Your task to perform on an android device: turn off improve location accuracy Image 0: 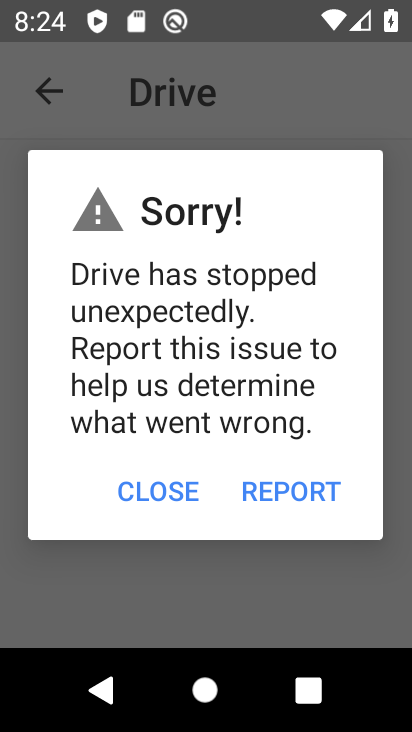
Step 0: press home button
Your task to perform on an android device: turn off improve location accuracy Image 1: 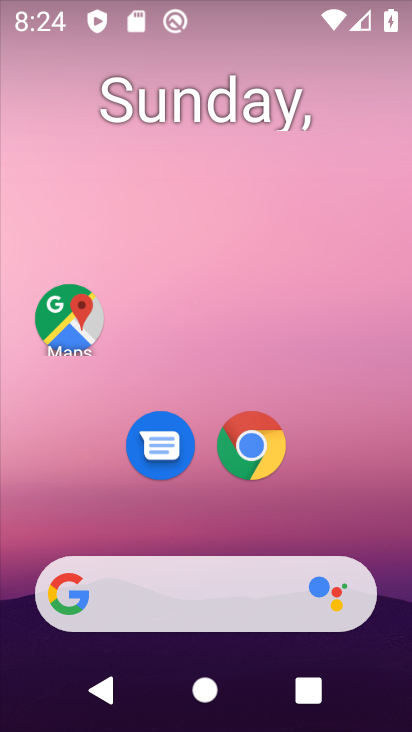
Step 1: drag from (380, 519) to (290, 70)
Your task to perform on an android device: turn off improve location accuracy Image 2: 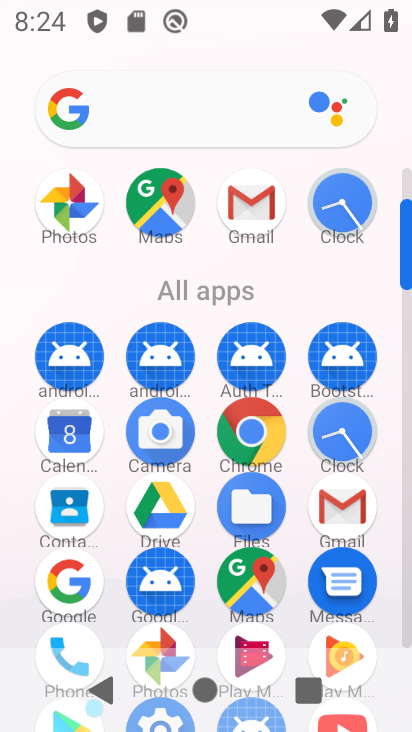
Step 2: drag from (306, 603) to (288, 342)
Your task to perform on an android device: turn off improve location accuracy Image 3: 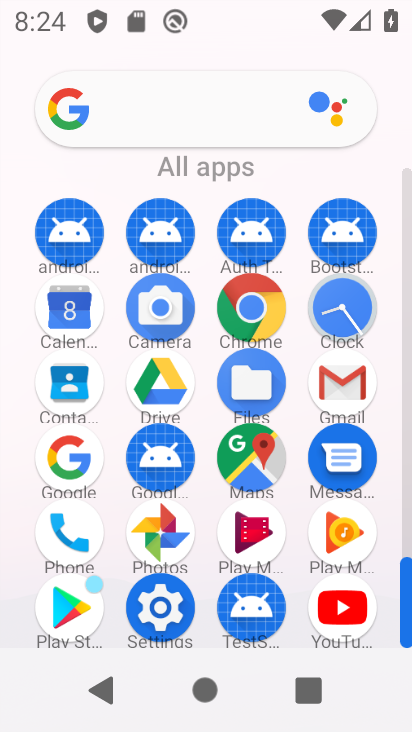
Step 3: click (168, 607)
Your task to perform on an android device: turn off improve location accuracy Image 4: 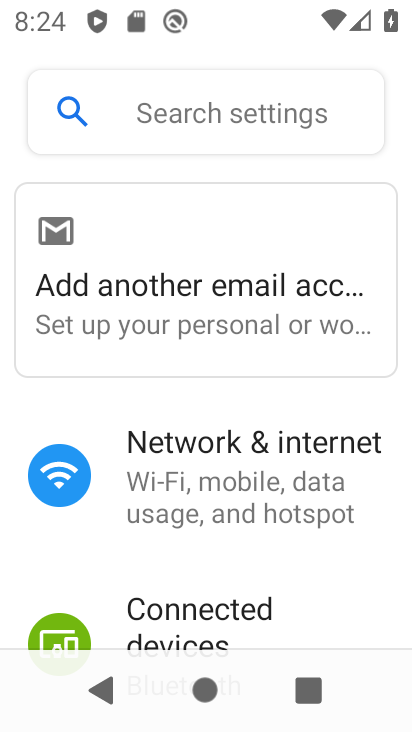
Step 4: drag from (308, 552) to (333, 299)
Your task to perform on an android device: turn off improve location accuracy Image 5: 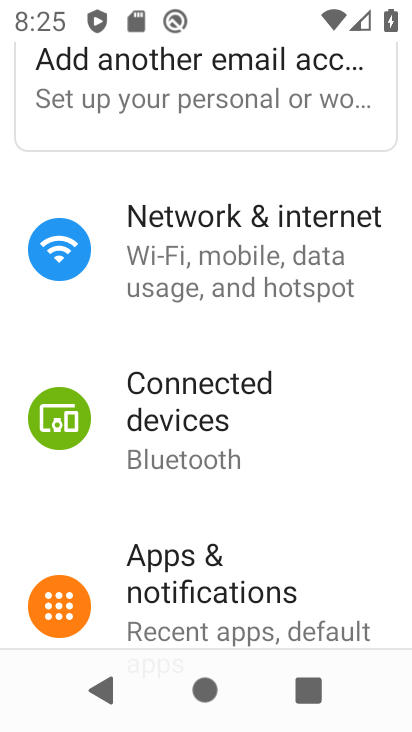
Step 5: drag from (278, 574) to (319, 271)
Your task to perform on an android device: turn off improve location accuracy Image 6: 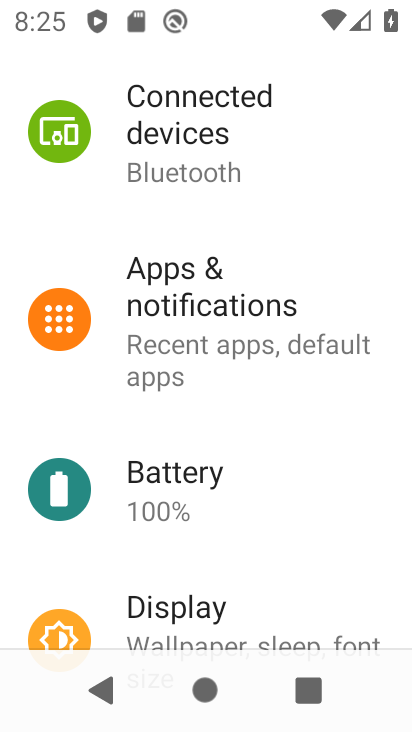
Step 6: drag from (266, 617) to (266, 339)
Your task to perform on an android device: turn off improve location accuracy Image 7: 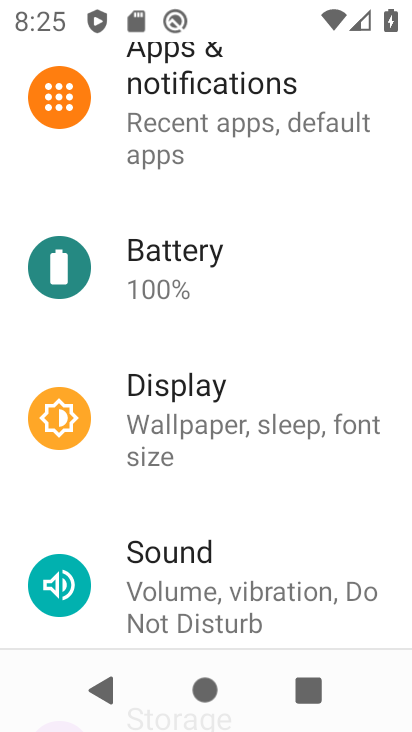
Step 7: drag from (314, 553) to (289, 187)
Your task to perform on an android device: turn off improve location accuracy Image 8: 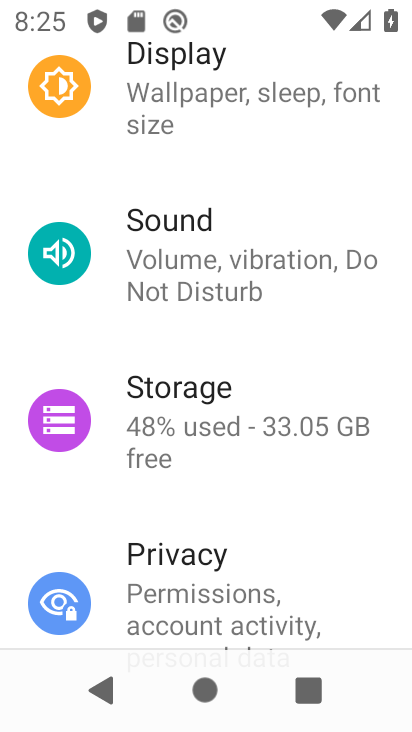
Step 8: drag from (283, 517) to (291, 180)
Your task to perform on an android device: turn off improve location accuracy Image 9: 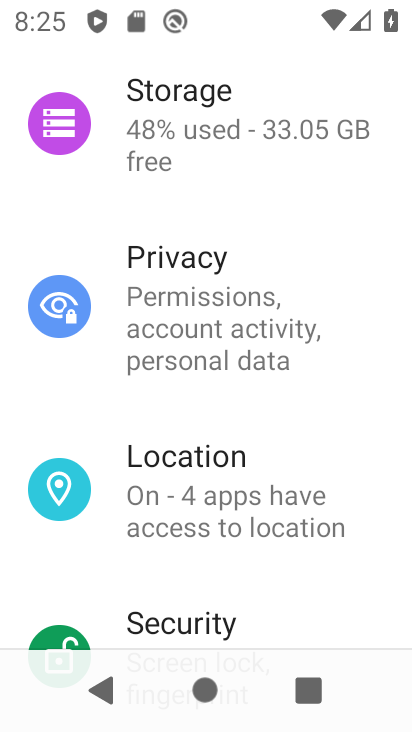
Step 9: click (194, 474)
Your task to perform on an android device: turn off improve location accuracy Image 10: 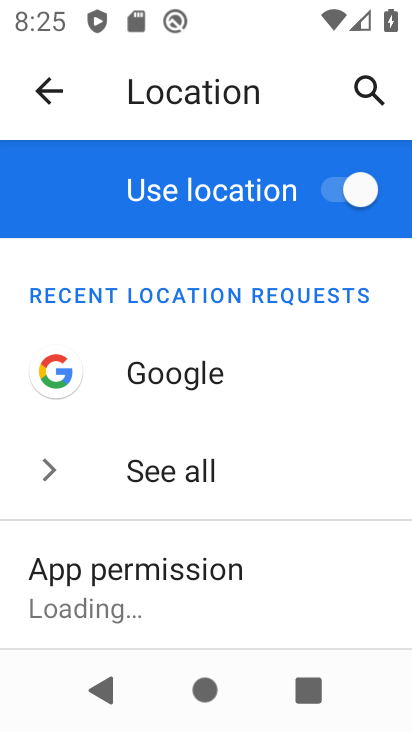
Step 10: drag from (370, 587) to (310, 294)
Your task to perform on an android device: turn off improve location accuracy Image 11: 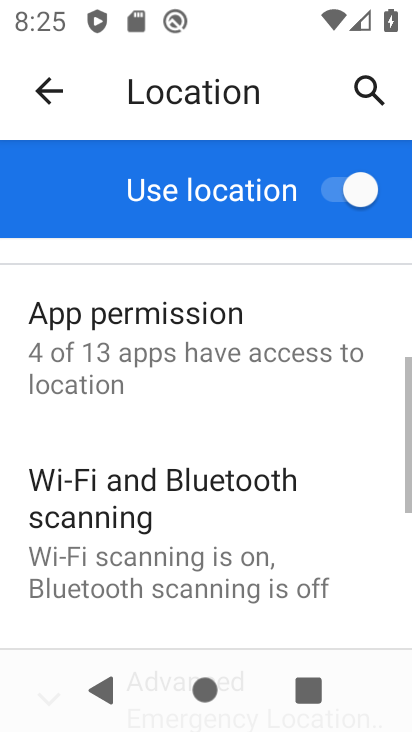
Step 11: drag from (264, 519) to (324, 202)
Your task to perform on an android device: turn off improve location accuracy Image 12: 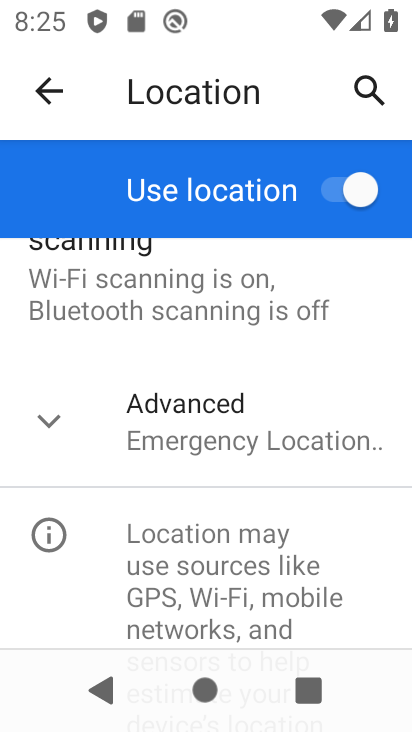
Step 12: click (215, 435)
Your task to perform on an android device: turn off improve location accuracy Image 13: 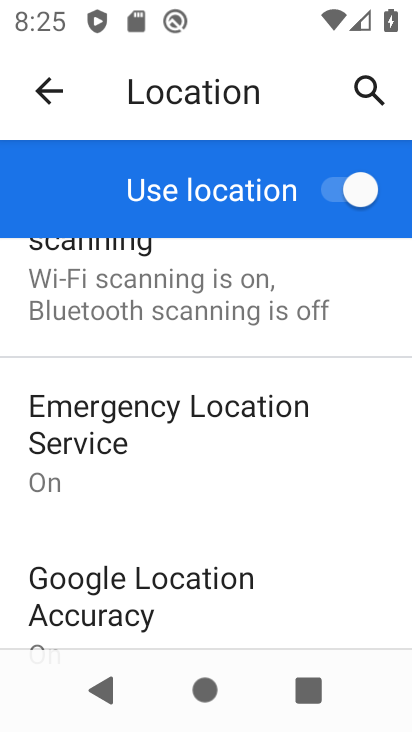
Step 13: click (214, 576)
Your task to perform on an android device: turn off improve location accuracy Image 14: 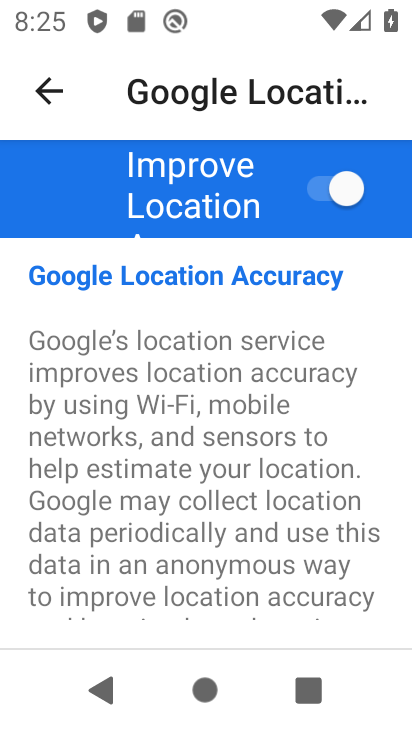
Step 14: click (339, 178)
Your task to perform on an android device: turn off improve location accuracy Image 15: 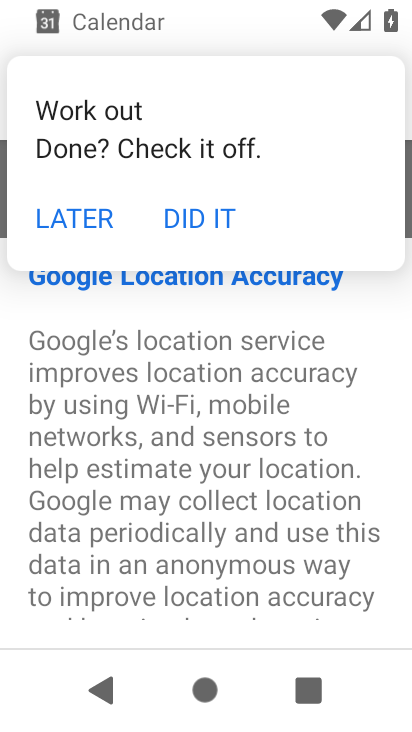
Step 15: task complete